Your task to perform on an android device: see creations saved in the google photos Image 0: 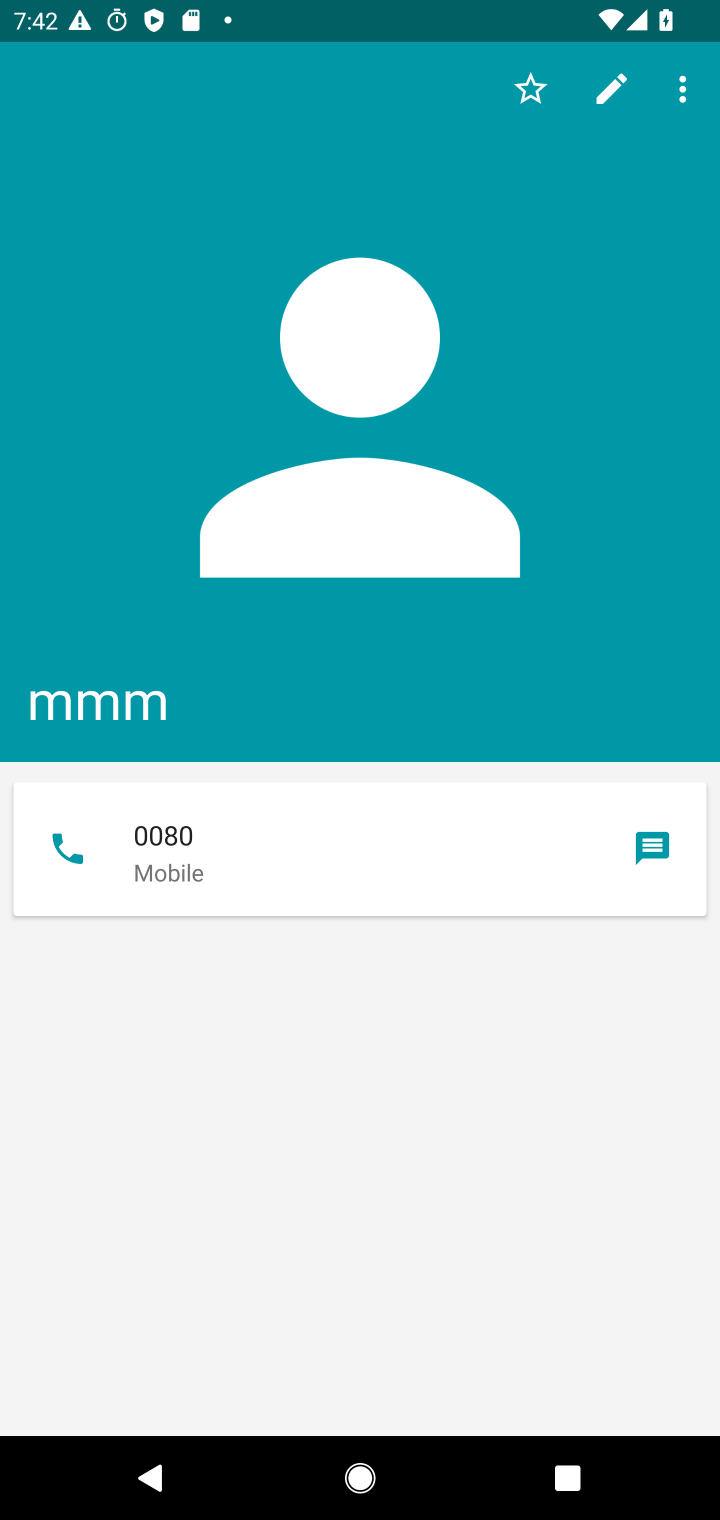
Step 0: press home button
Your task to perform on an android device: see creations saved in the google photos Image 1: 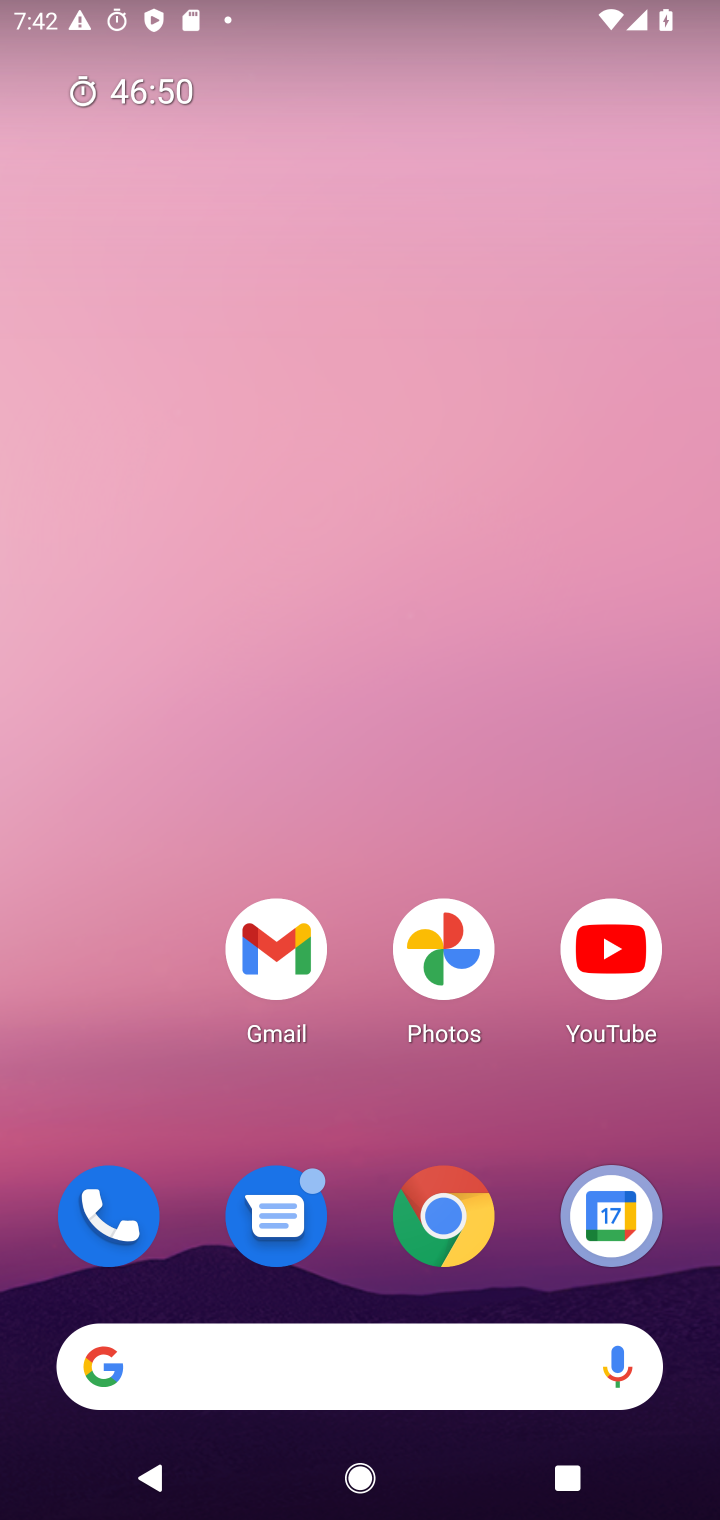
Step 1: drag from (196, 1115) to (377, 7)
Your task to perform on an android device: see creations saved in the google photos Image 2: 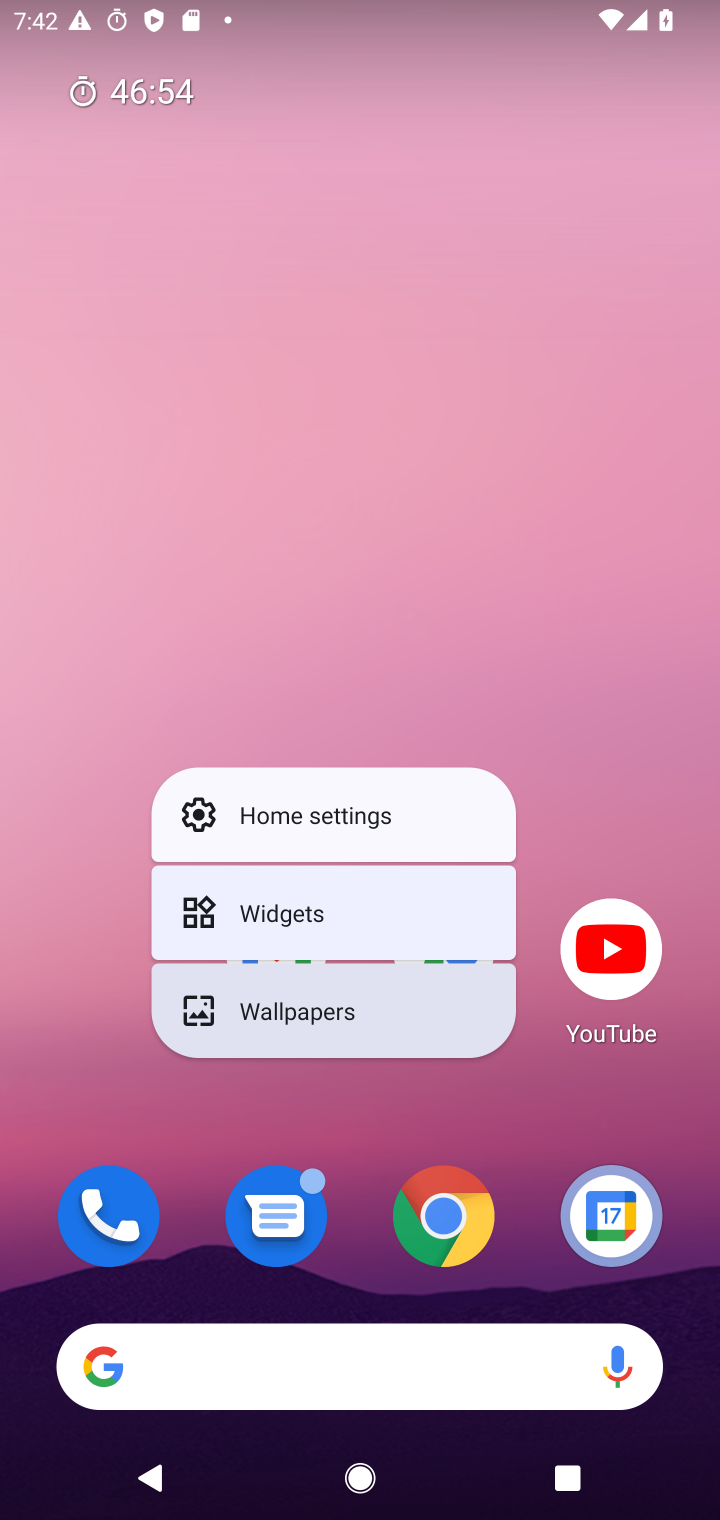
Step 2: click (521, 1102)
Your task to perform on an android device: see creations saved in the google photos Image 3: 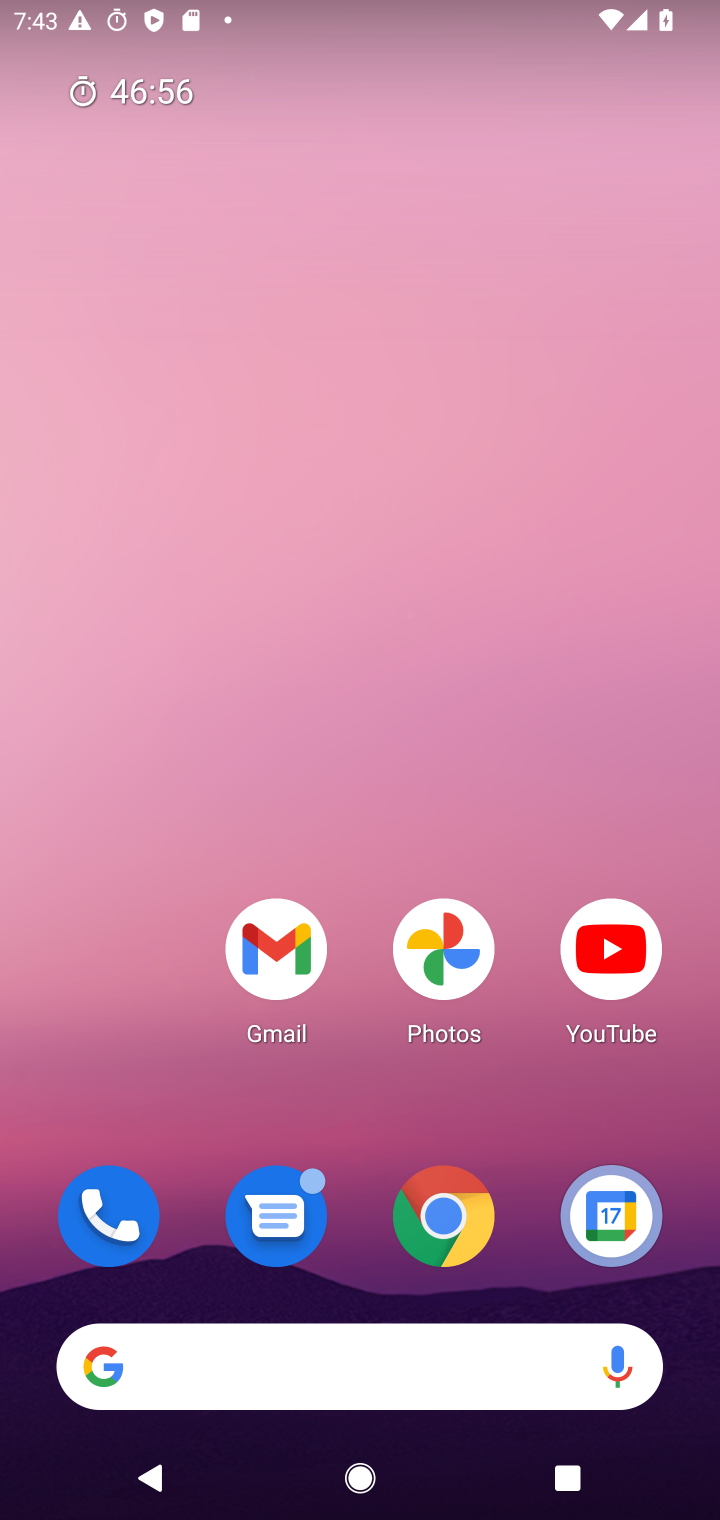
Step 3: drag from (521, 1098) to (631, 114)
Your task to perform on an android device: see creations saved in the google photos Image 4: 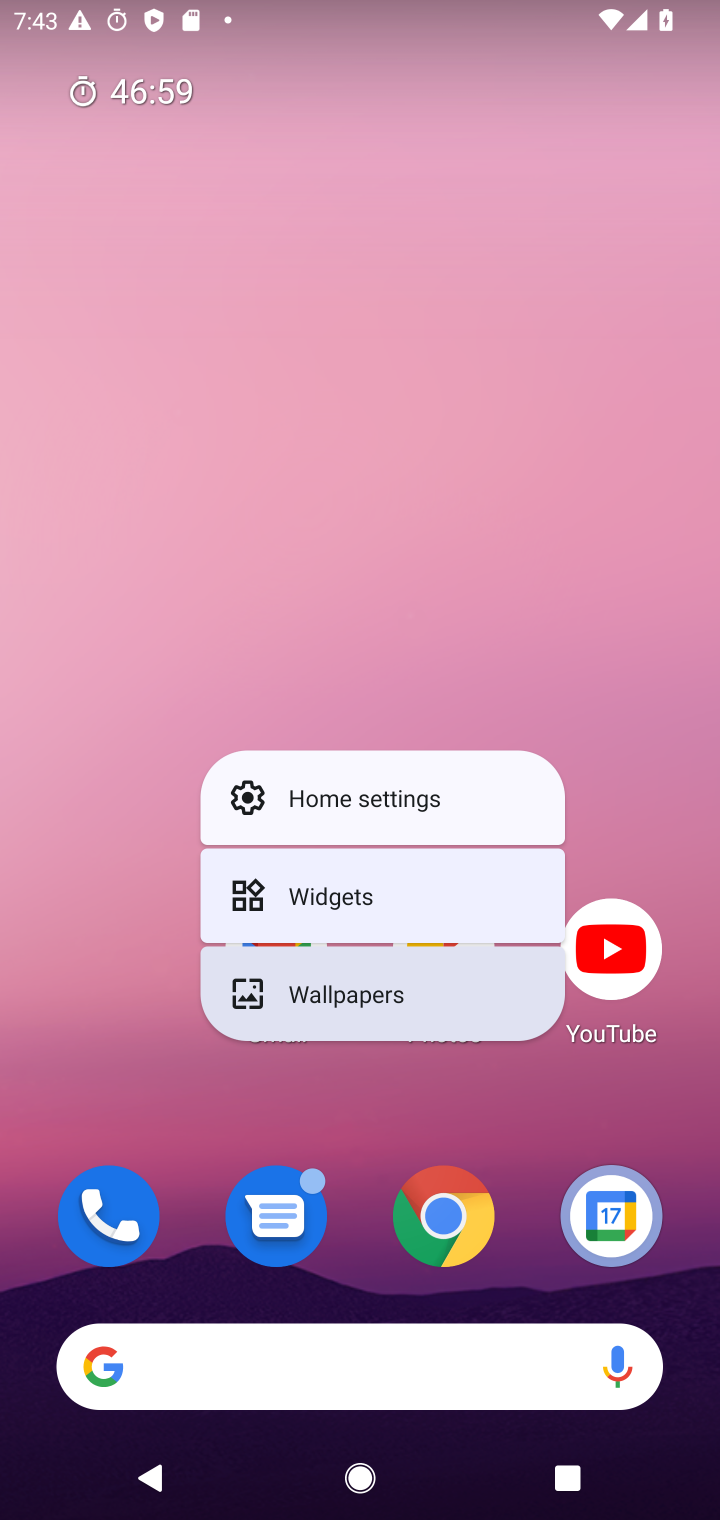
Step 4: click (81, 997)
Your task to perform on an android device: see creations saved in the google photos Image 5: 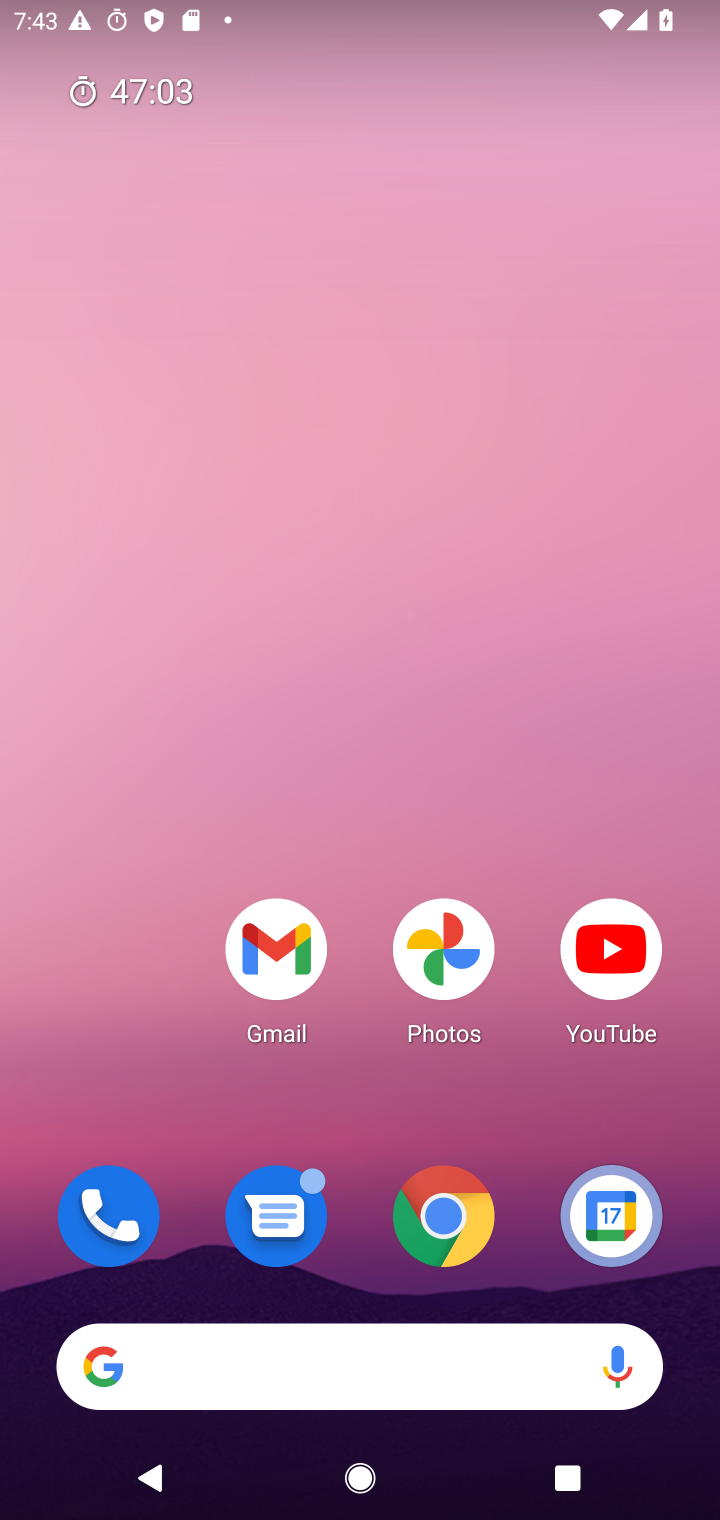
Step 5: drag from (203, 1112) to (356, 50)
Your task to perform on an android device: see creations saved in the google photos Image 6: 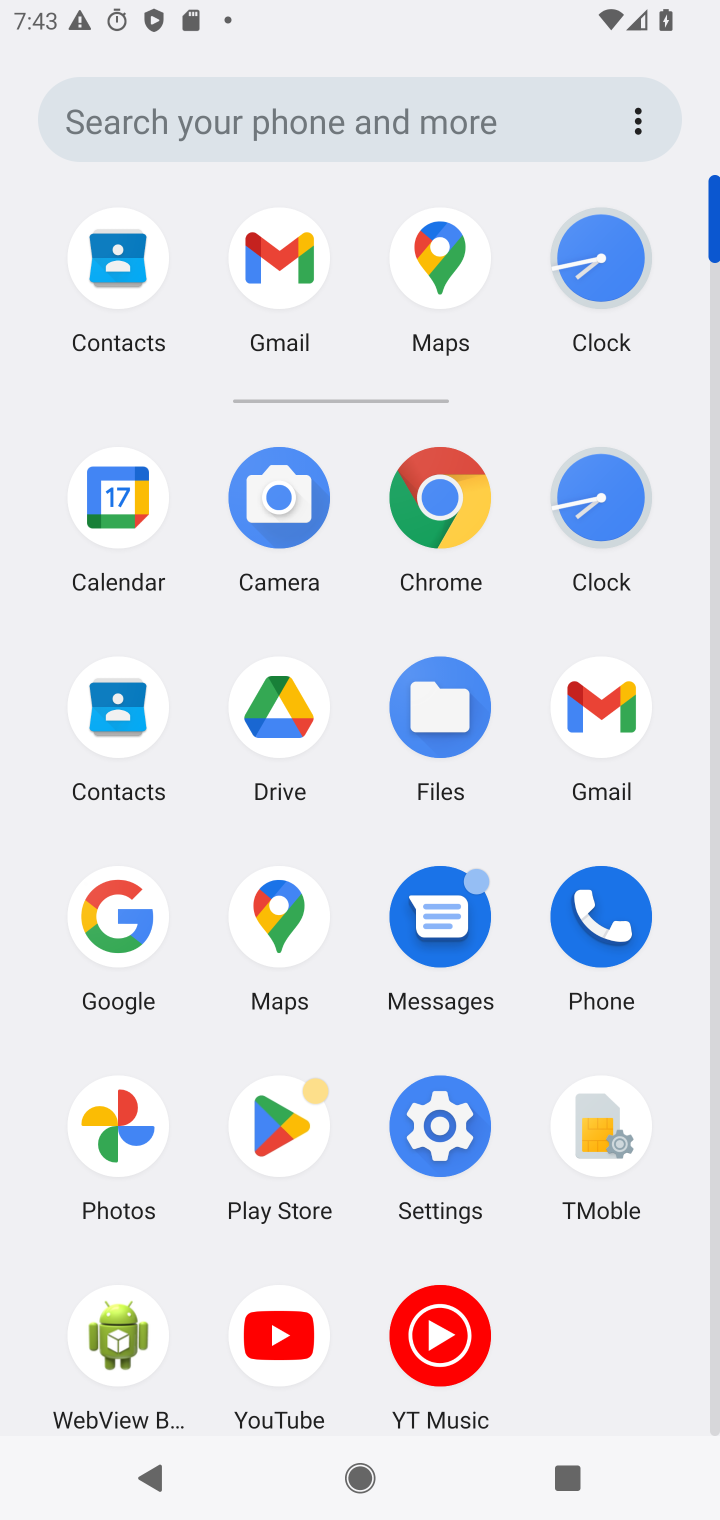
Step 6: click (128, 1109)
Your task to perform on an android device: see creations saved in the google photos Image 7: 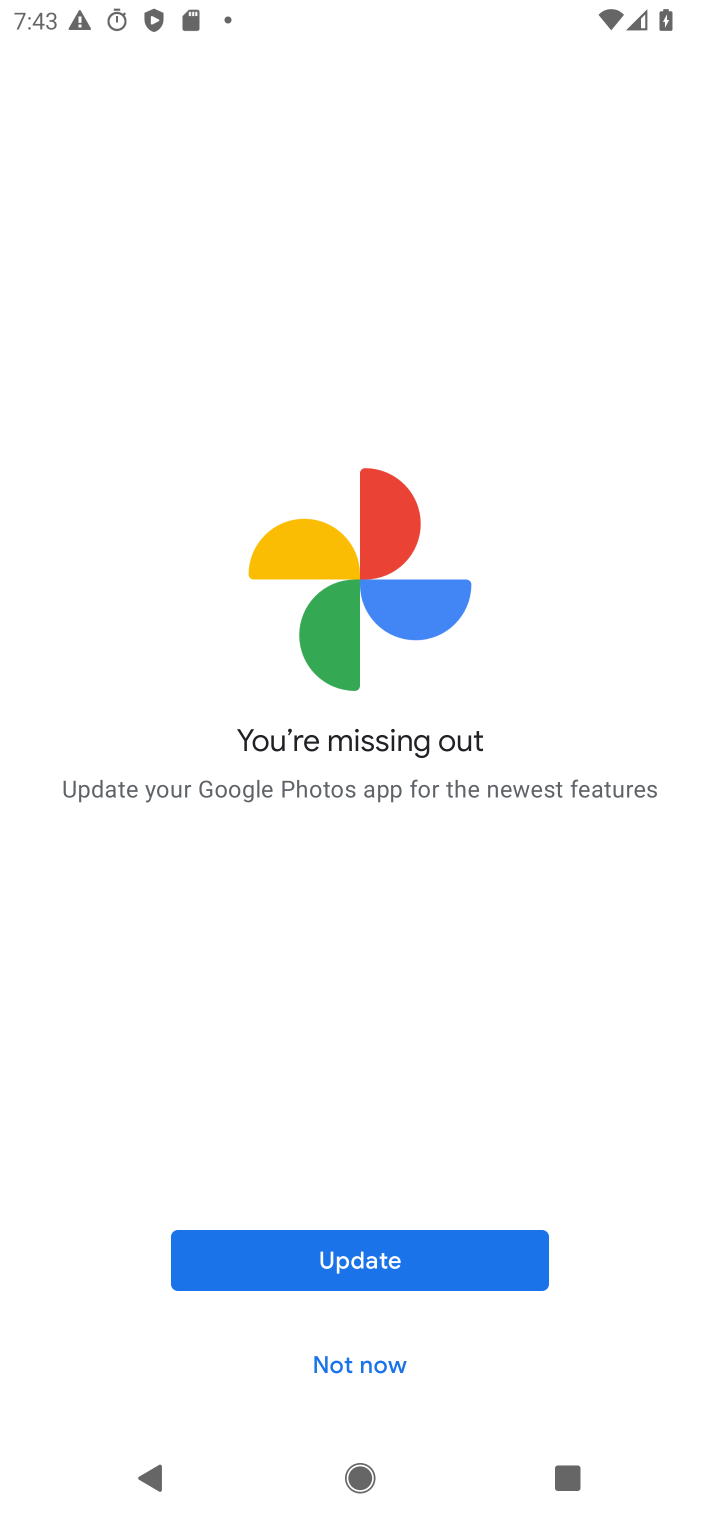
Step 7: click (508, 1241)
Your task to perform on an android device: see creations saved in the google photos Image 8: 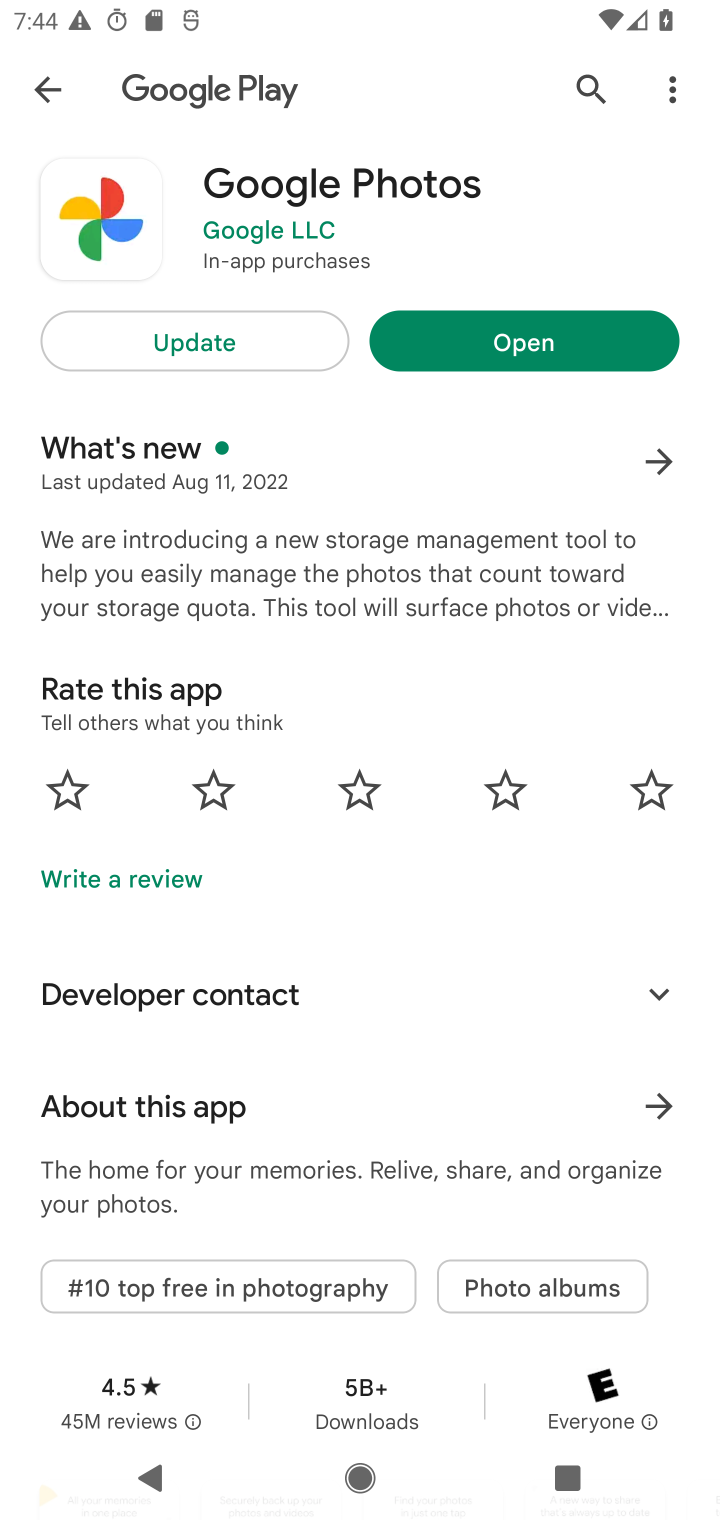
Step 8: click (274, 350)
Your task to perform on an android device: see creations saved in the google photos Image 9: 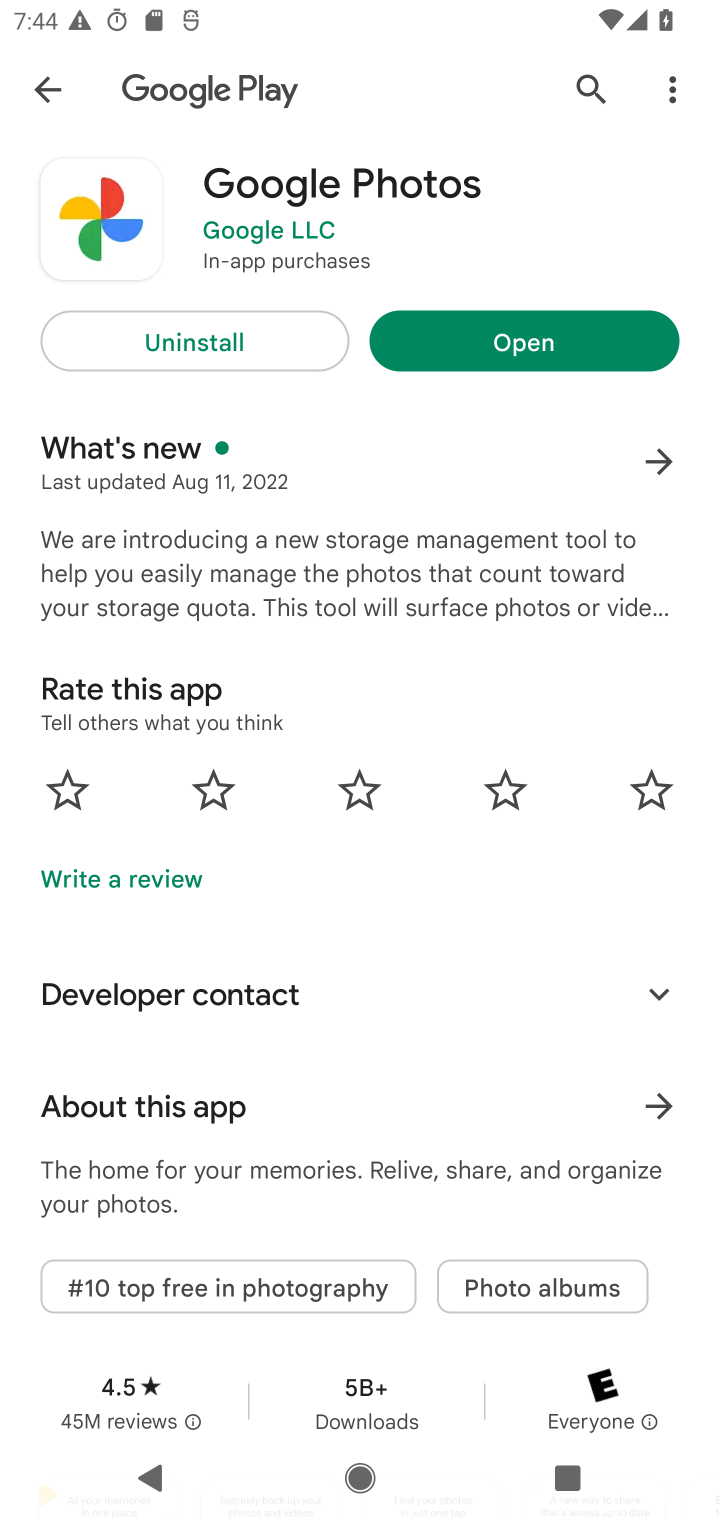
Step 9: click (538, 325)
Your task to perform on an android device: see creations saved in the google photos Image 10: 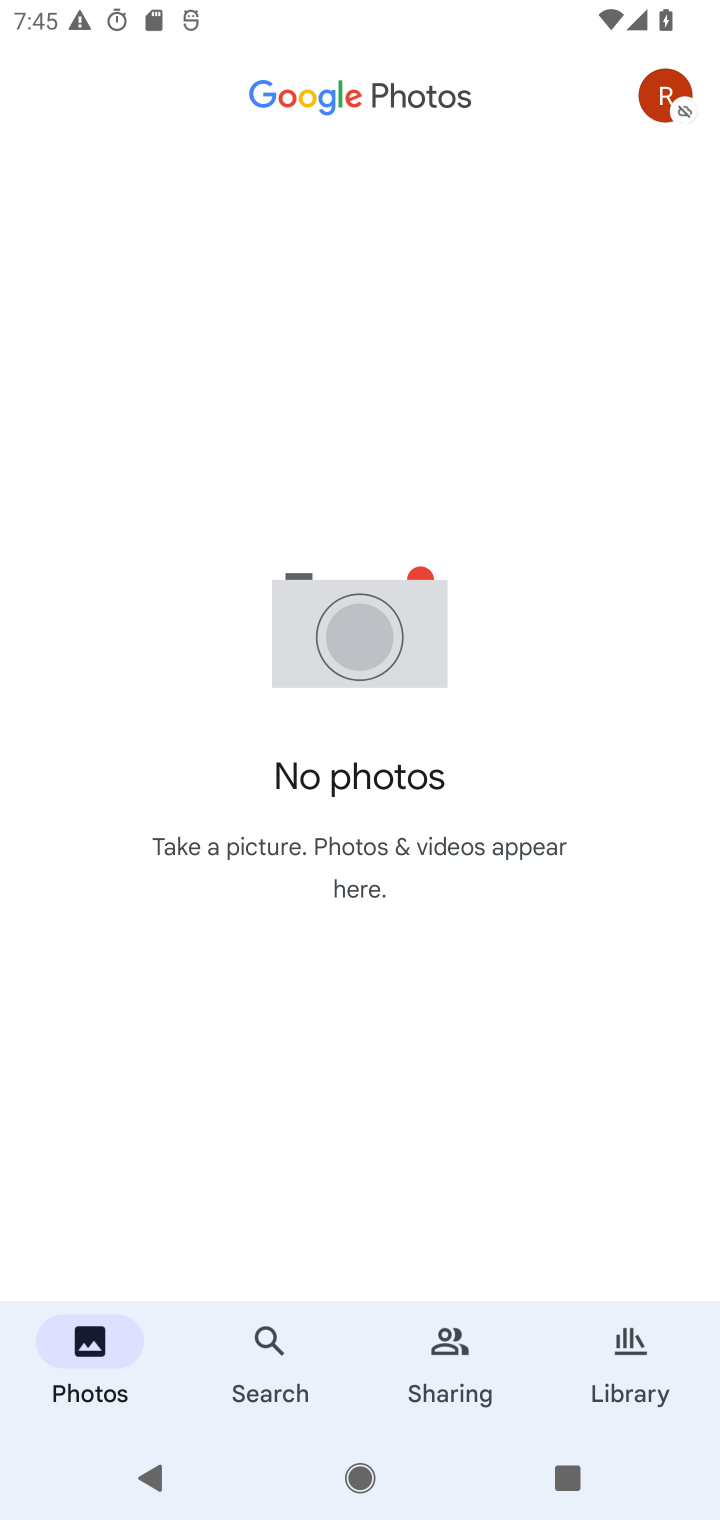
Step 10: click (274, 1346)
Your task to perform on an android device: see creations saved in the google photos Image 11: 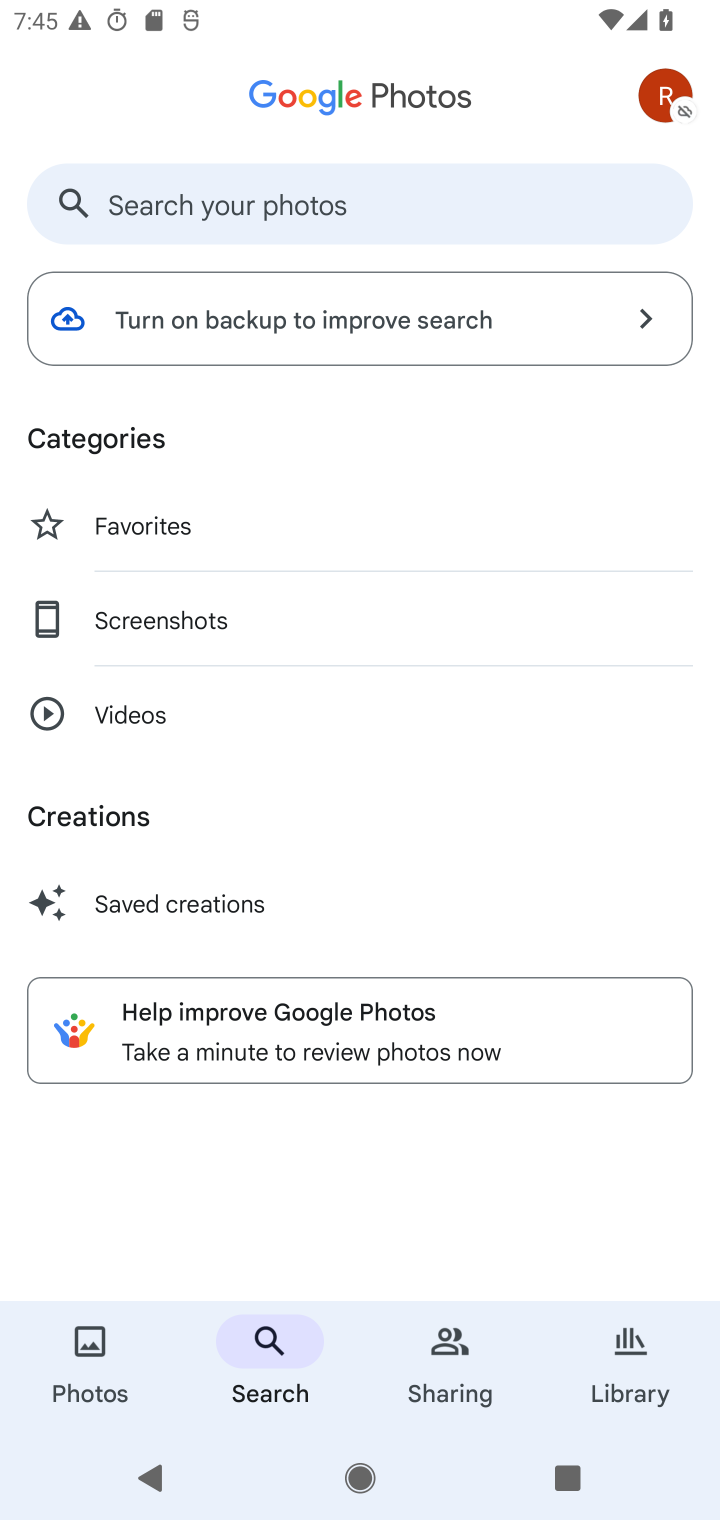
Step 11: click (136, 883)
Your task to perform on an android device: see creations saved in the google photos Image 12: 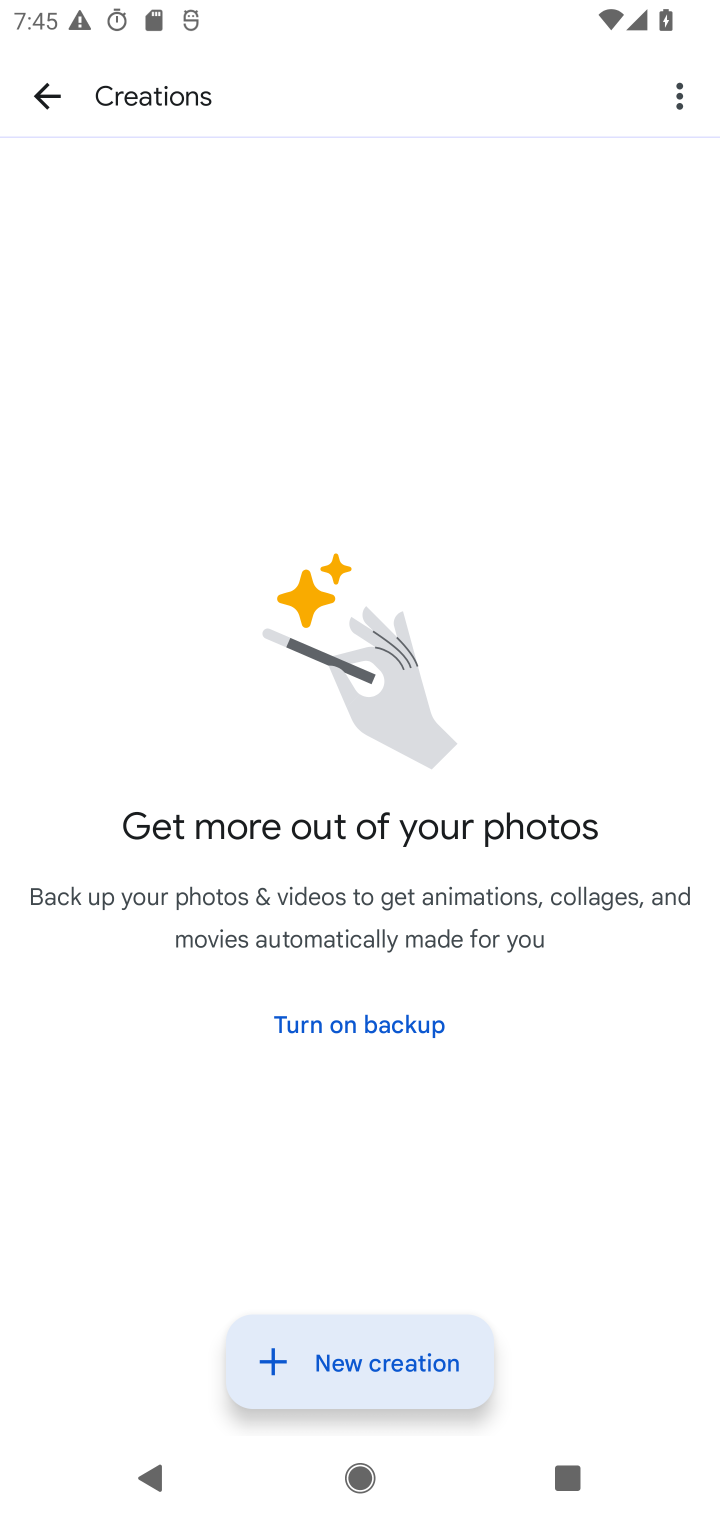
Step 12: task complete